Your task to perform on an android device: change the clock display to analog Image 0: 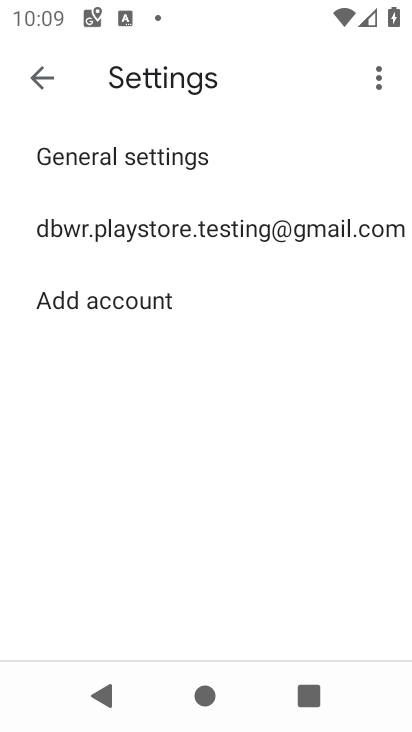
Step 0: press home button
Your task to perform on an android device: change the clock display to analog Image 1: 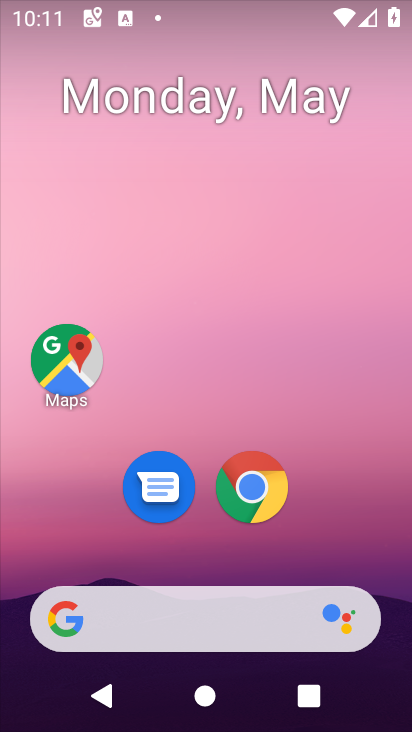
Step 1: drag from (197, 543) to (175, 114)
Your task to perform on an android device: change the clock display to analog Image 2: 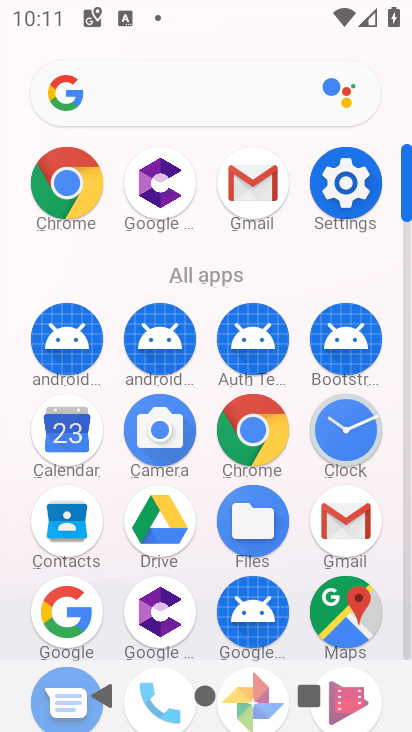
Step 2: click (361, 407)
Your task to perform on an android device: change the clock display to analog Image 3: 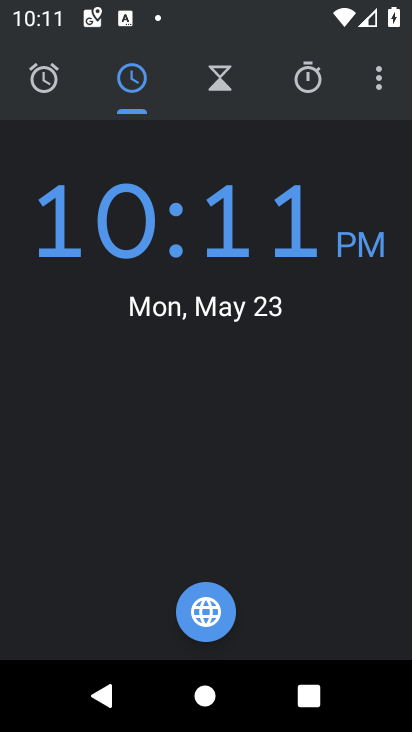
Step 3: click (380, 75)
Your task to perform on an android device: change the clock display to analog Image 4: 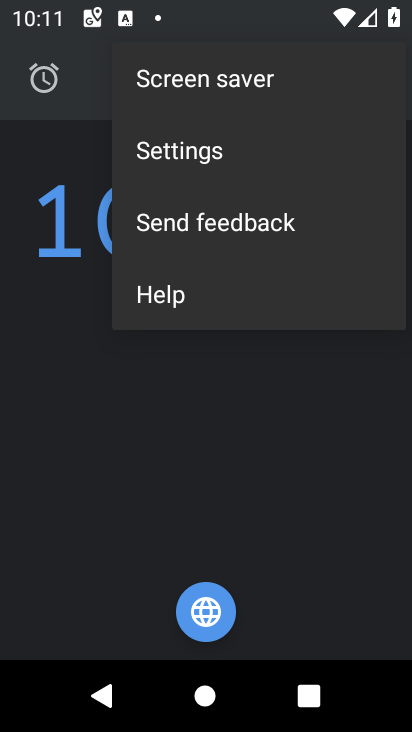
Step 4: click (200, 142)
Your task to perform on an android device: change the clock display to analog Image 5: 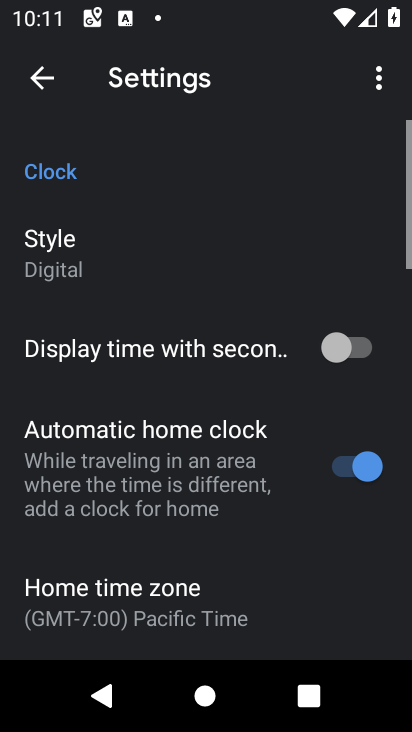
Step 5: click (117, 276)
Your task to perform on an android device: change the clock display to analog Image 6: 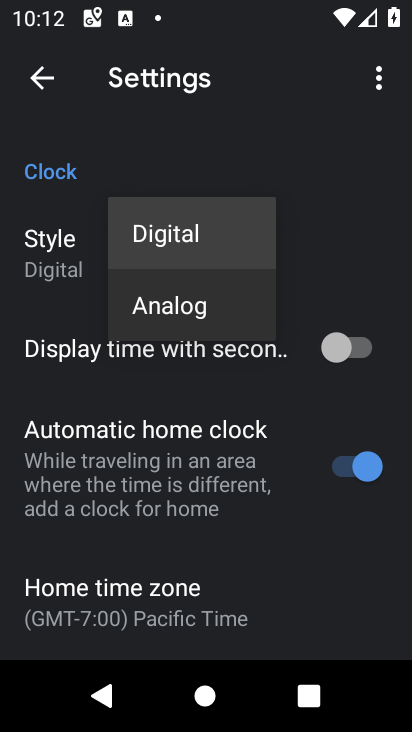
Step 6: click (131, 288)
Your task to perform on an android device: change the clock display to analog Image 7: 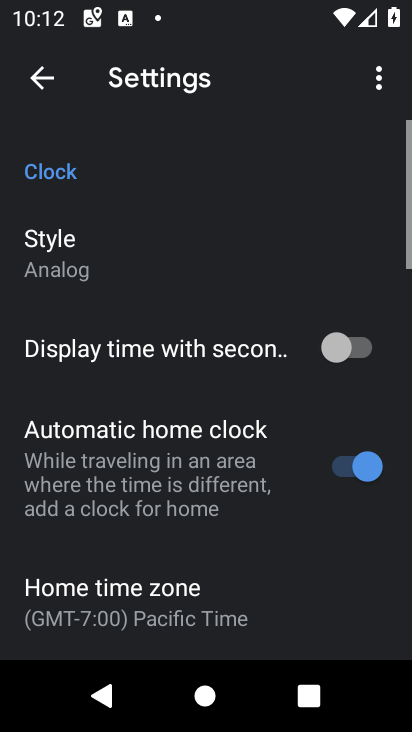
Step 7: task complete